Your task to perform on an android device: choose inbox layout in the gmail app Image 0: 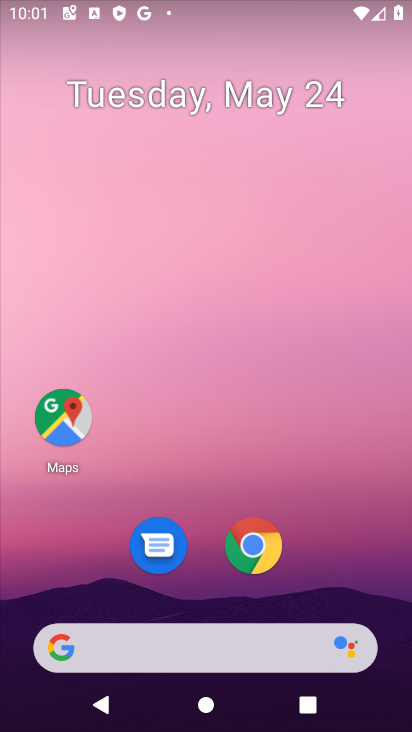
Step 0: drag from (210, 420) to (264, 7)
Your task to perform on an android device: choose inbox layout in the gmail app Image 1: 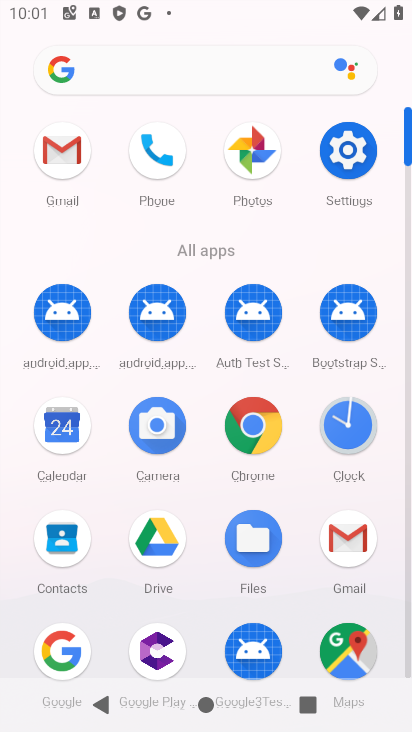
Step 1: click (68, 159)
Your task to perform on an android device: choose inbox layout in the gmail app Image 2: 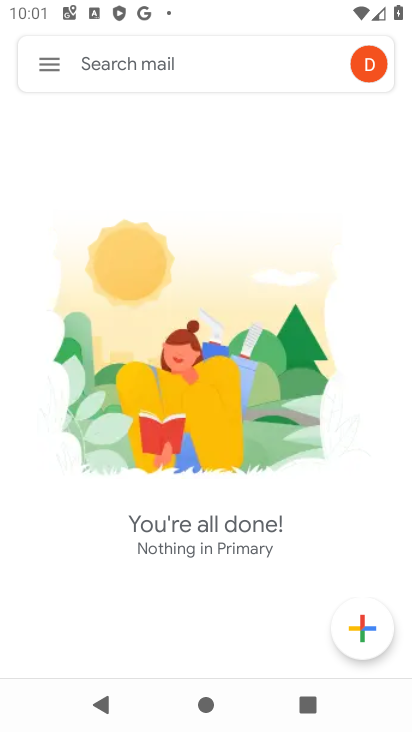
Step 2: click (49, 55)
Your task to perform on an android device: choose inbox layout in the gmail app Image 3: 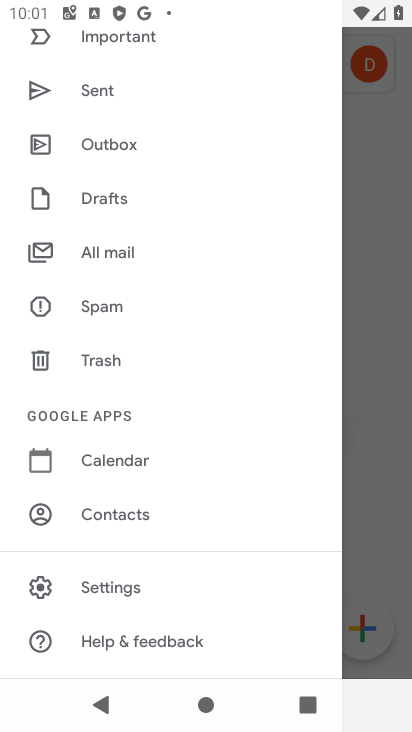
Step 3: click (66, 584)
Your task to perform on an android device: choose inbox layout in the gmail app Image 4: 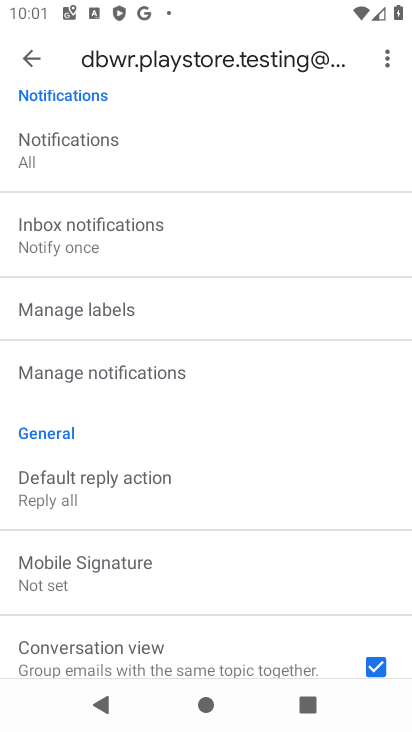
Step 4: drag from (217, 243) to (205, 582)
Your task to perform on an android device: choose inbox layout in the gmail app Image 5: 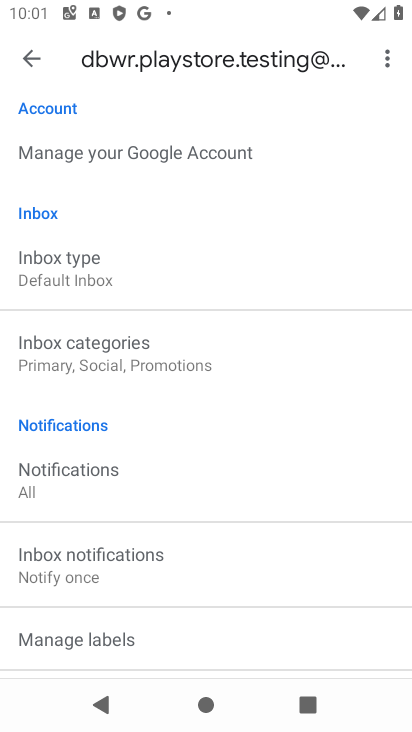
Step 5: click (98, 271)
Your task to perform on an android device: choose inbox layout in the gmail app Image 6: 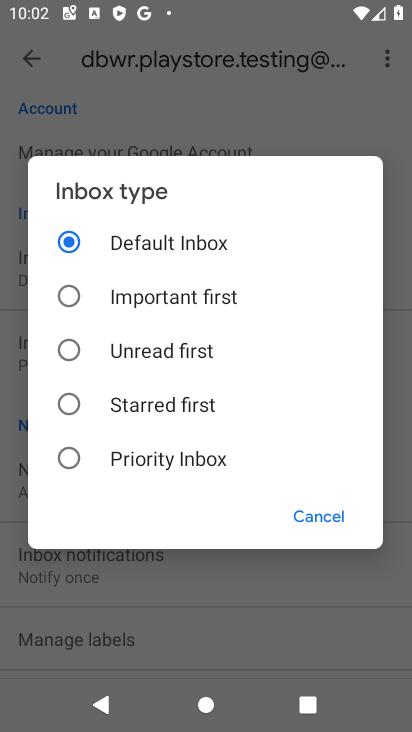
Step 6: click (97, 291)
Your task to perform on an android device: choose inbox layout in the gmail app Image 7: 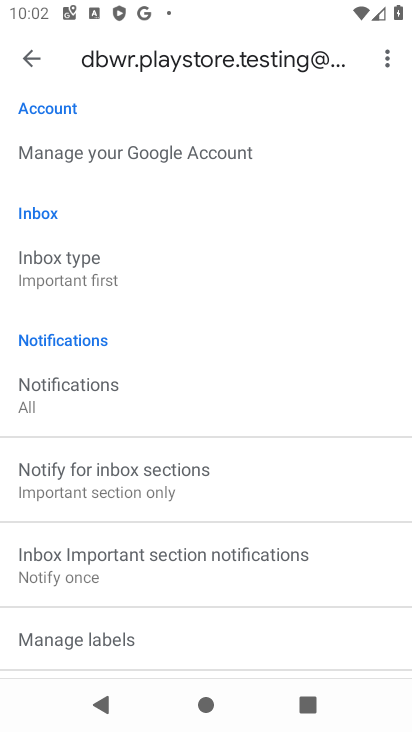
Step 7: task complete